Your task to perform on an android device: Show me the alarms in the clock app Image 0: 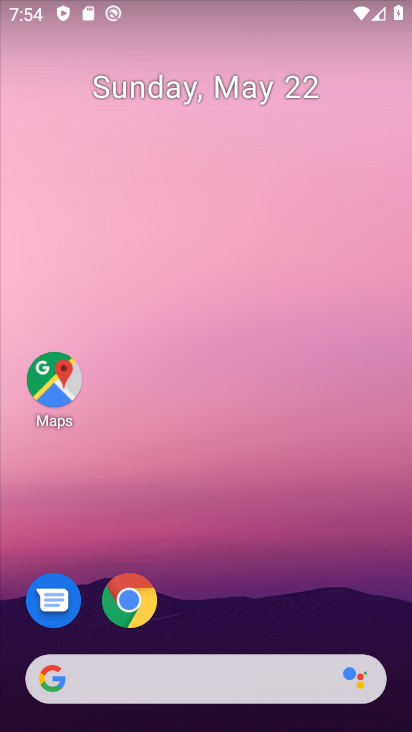
Step 0: click (212, 634)
Your task to perform on an android device: Show me the alarms in the clock app Image 1: 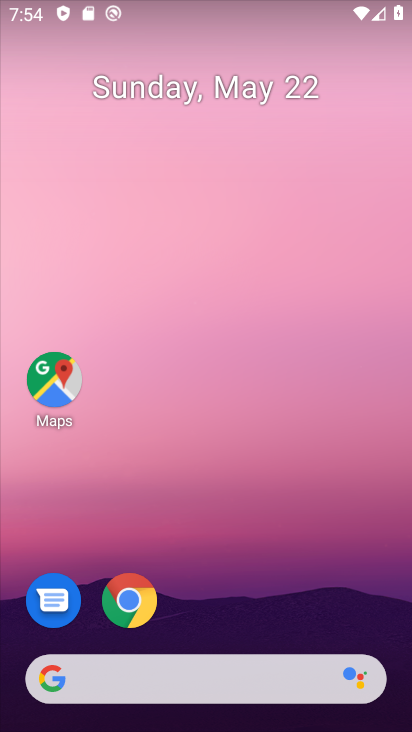
Step 1: drag from (213, 647) to (220, 296)
Your task to perform on an android device: Show me the alarms in the clock app Image 2: 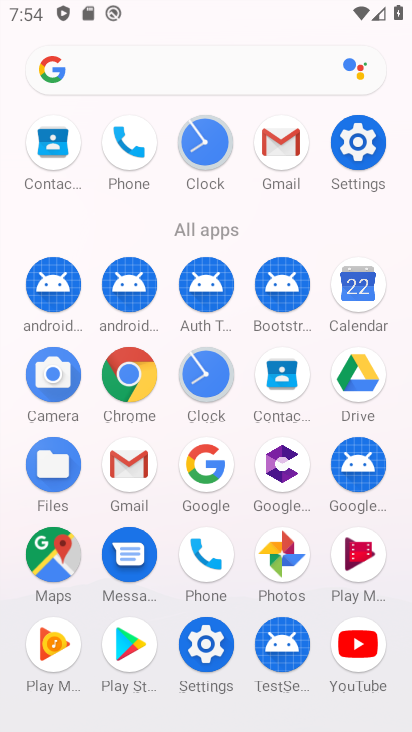
Step 2: click (198, 151)
Your task to perform on an android device: Show me the alarms in the clock app Image 3: 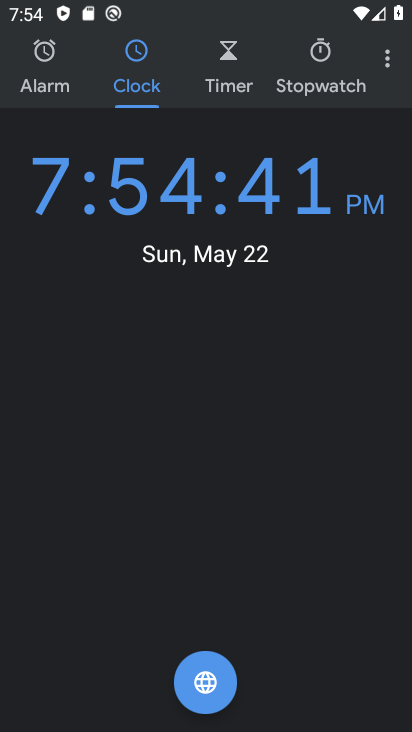
Step 3: click (58, 80)
Your task to perform on an android device: Show me the alarms in the clock app Image 4: 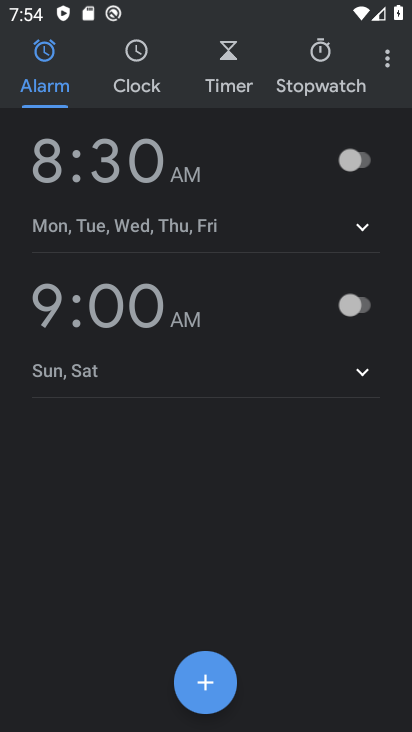
Step 4: task complete